Your task to perform on an android device: Open Maps and search for coffee Image 0: 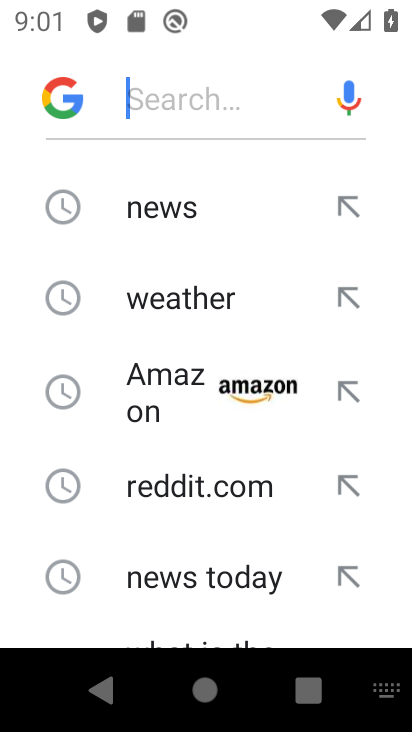
Step 0: press home button
Your task to perform on an android device: Open Maps and search for coffee Image 1: 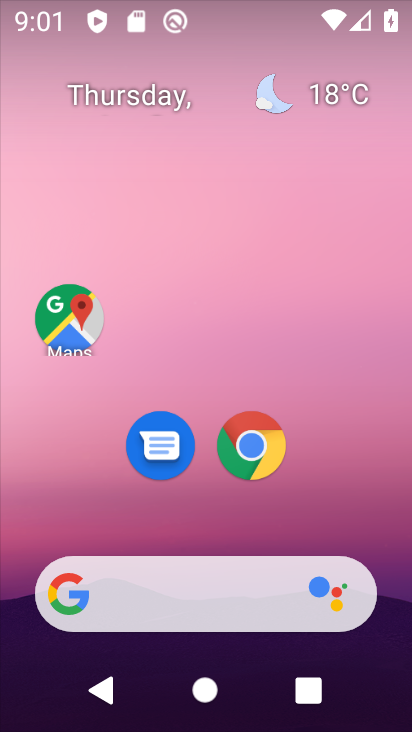
Step 1: click (89, 341)
Your task to perform on an android device: Open Maps and search for coffee Image 2: 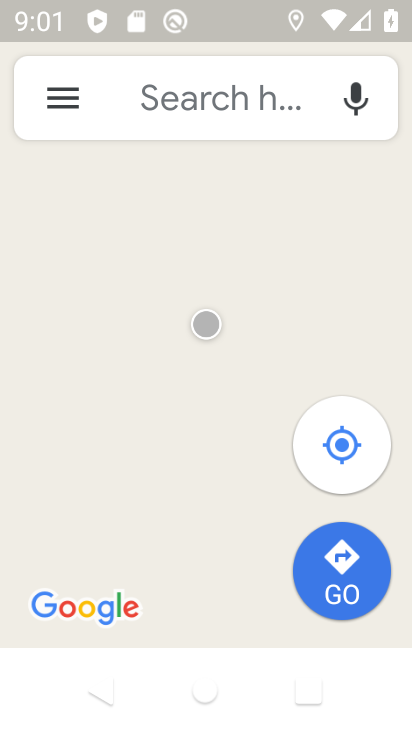
Step 2: click (218, 100)
Your task to perform on an android device: Open Maps and search for coffee Image 3: 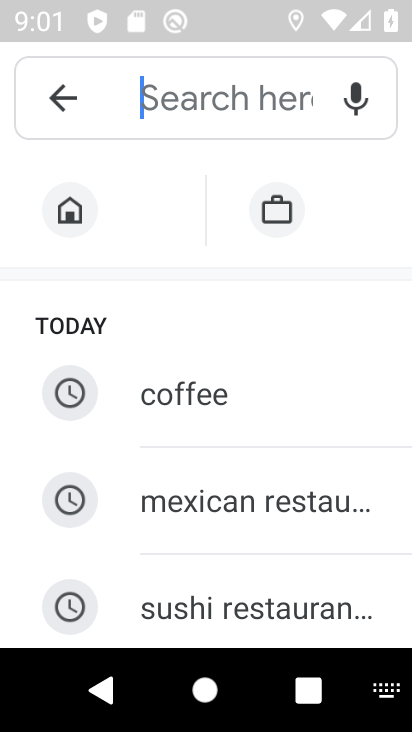
Step 3: click (201, 390)
Your task to perform on an android device: Open Maps and search for coffee Image 4: 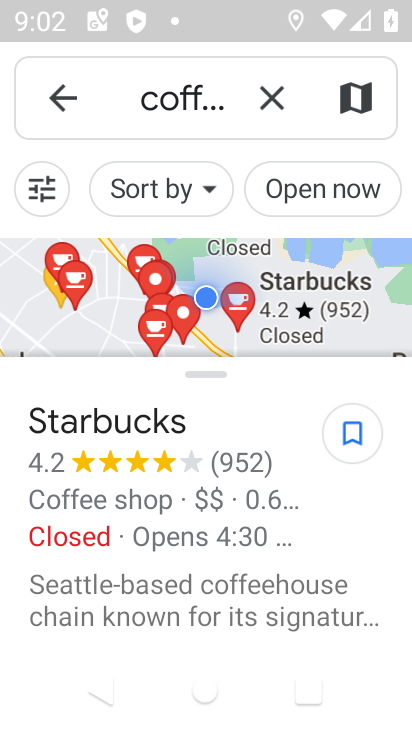
Step 4: task complete